Your task to perform on an android device: Add "apple airpods pro" to the cart on costco.com Image 0: 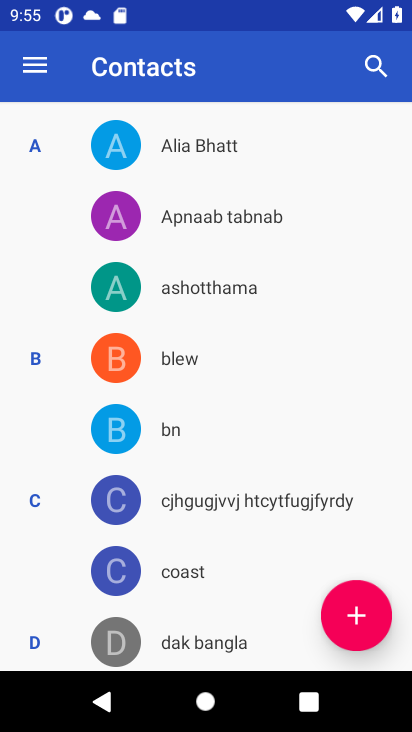
Step 0: press home button
Your task to perform on an android device: Add "apple airpods pro" to the cart on costco.com Image 1: 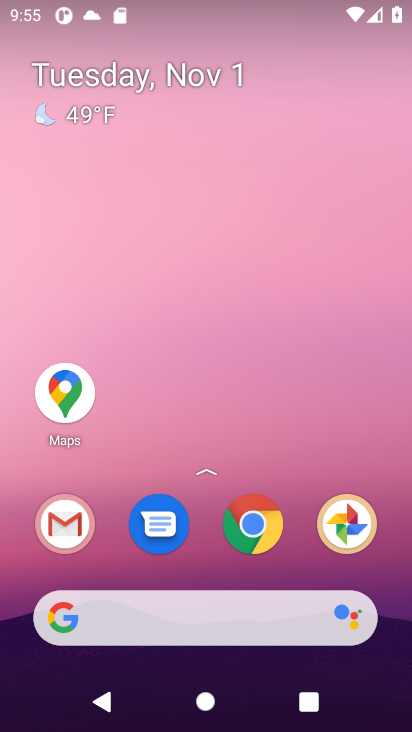
Step 1: click (101, 614)
Your task to perform on an android device: Add "apple airpods pro" to the cart on costco.com Image 2: 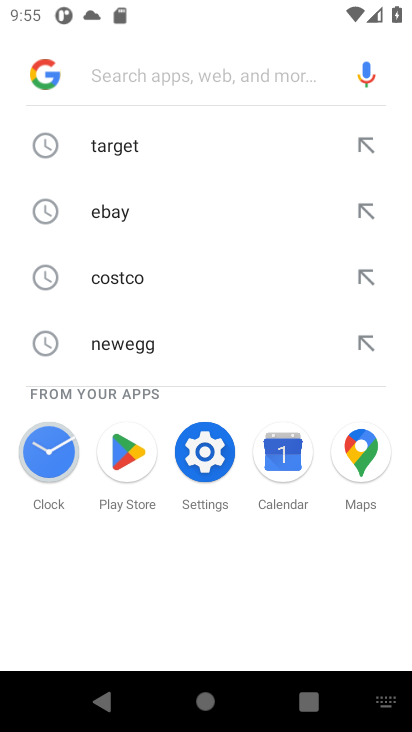
Step 2: type "costco.com"
Your task to perform on an android device: Add "apple airpods pro" to the cart on costco.com Image 3: 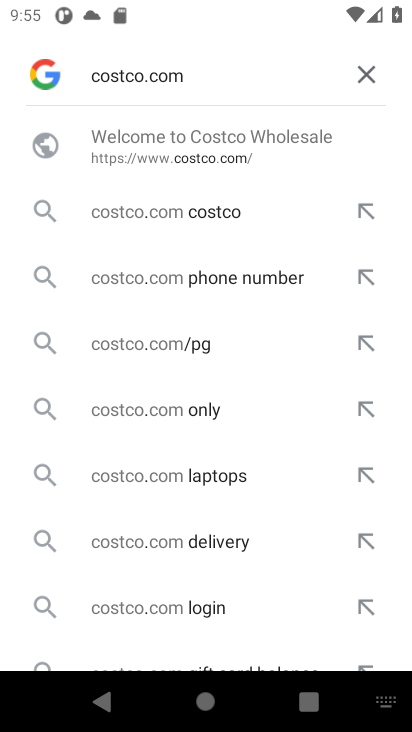
Step 3: press enter
Your task to perform on an android device: Add "apple airpods pro" to the cart on costco.com Image 4: 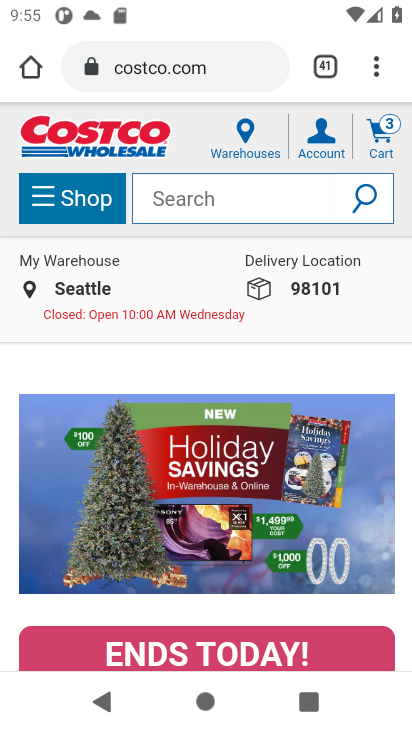
Step 4: click (166, 193)
Your task to perform on an android device: Add "apple airpods pro" to the cart on costco.com Image 5: 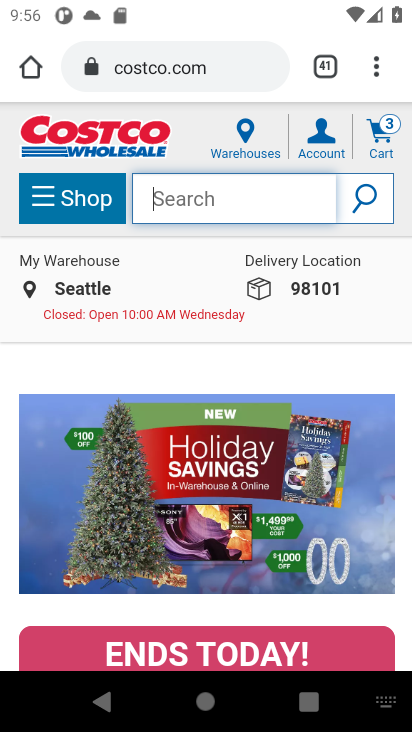
Step 5: type "apple airpods pro"
Your task to perform on an android device: Add "apple airpods pro" to the cart on costco.com Image 6: 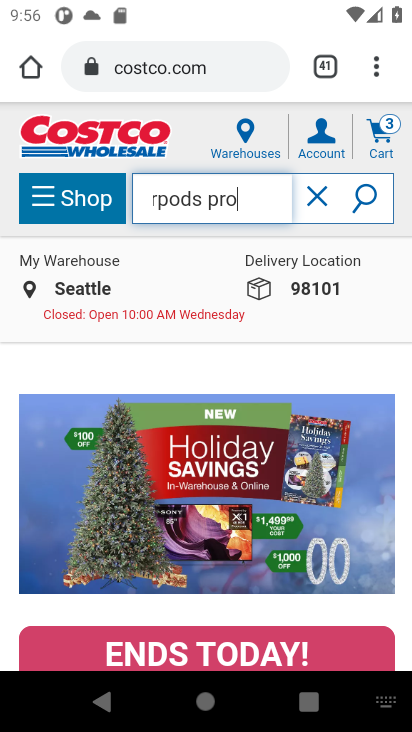
Step 6: press enter
Your task to perform on an android device: Add "apple airpods pro" to the cart on costco.com Image 7: 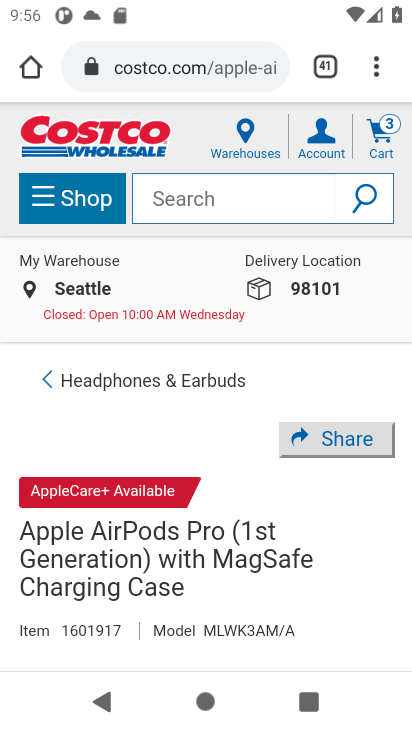
Step 7: drag from (242, 538) to (275, 321)
Your task to perform on an android device: Add "apple airpods pro" to the cart on costco.com Image 8: 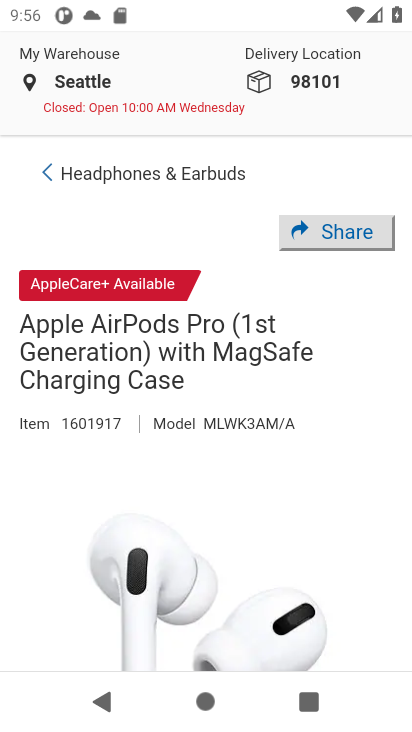
Step 8: drag from (272, 532) to (266, 242)
Your task to perform on an android device: Add "apple airpods pro" to the cart on costco.com Image 9: 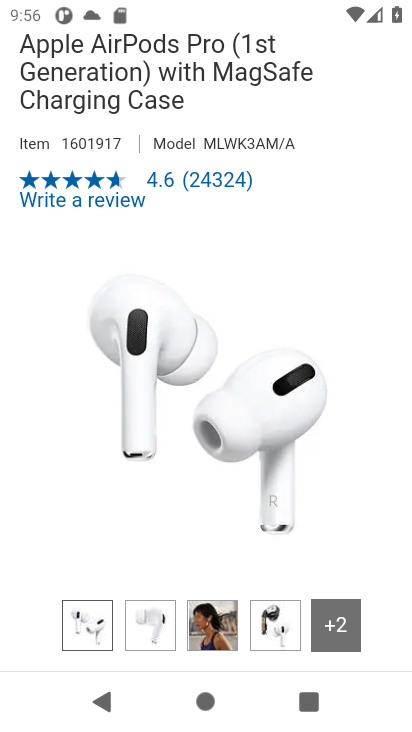
Step 9: drag from (228, 476) to (231, 130)
Your task to perform on an android device: Add "apple airpods pro" to the cart on costco.com Image 10: 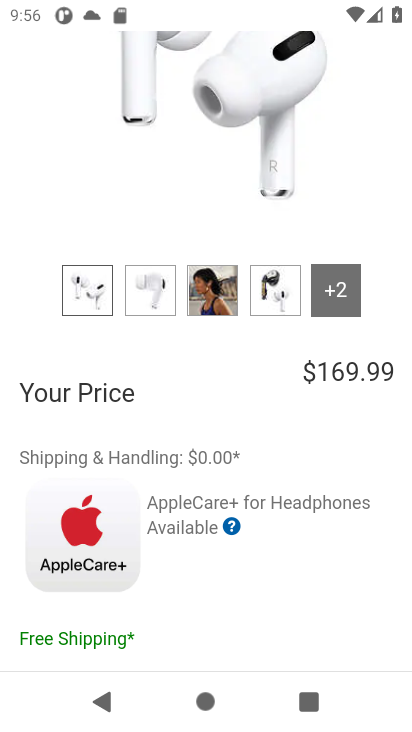
Step 10: drag from (228, 587) to (217, 245)
Your task to perform on an android device: Add "apple airpods pro" to the cart on costco.com Image 11: 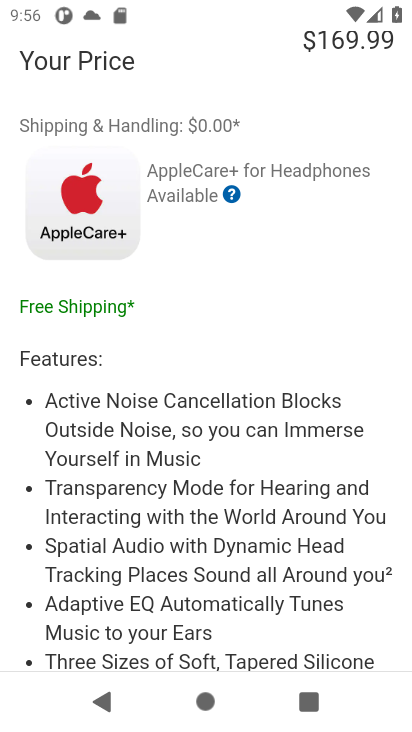
Step 11: drag from (235, 577) to (184, 194)
Your task to perform on an android device: Add "apple airpods pro" to the cart on costco.com Image 12: 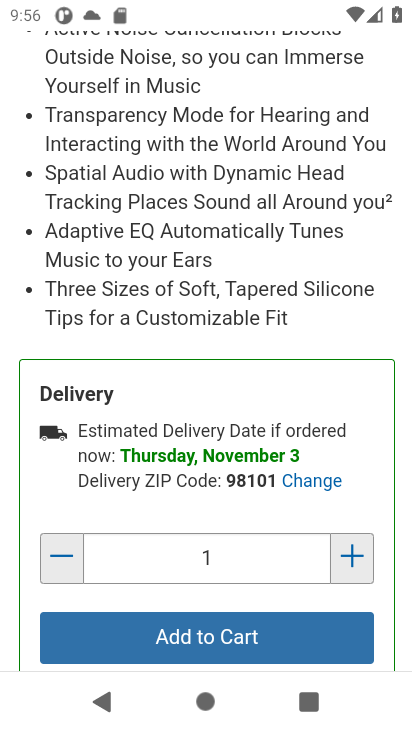
Step 12: drag from (220, 463) to (260, 83)
Your task to perform on an android device: Add "apple airpods pro" to the cart on costco.com Image 13: 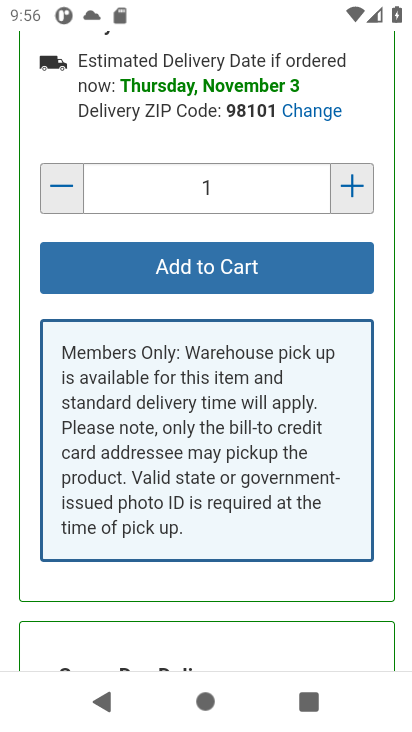
Step 13: click (175, 270)
Your task to perform on an android device: Add "apple airpods pro" to the cart on costco.com Image 14: 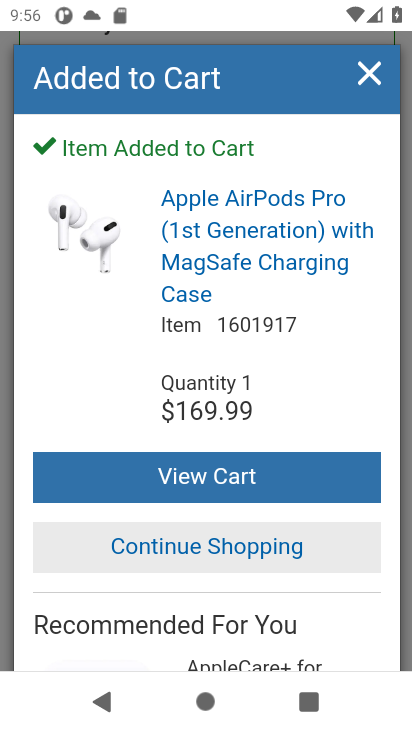
Step 14: task complete